Your task to perform on an android device: empty trash in the gmail app Image 0: 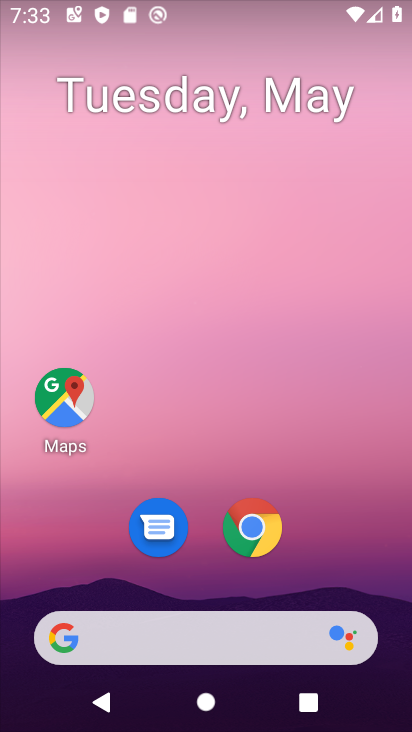
Step 0: drag from (338, 557) to (212, 89)
Your task to perform on an android device: empty trash in the gmail app Image 1: 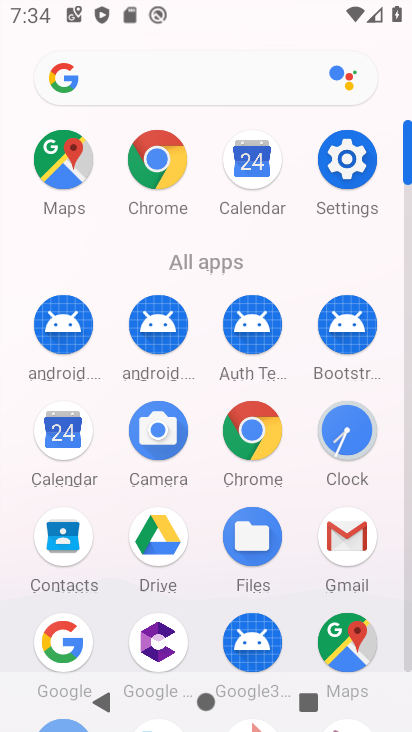
Step 1: click (346, 537)
Your task to perform on an android device: empty trash in the gmail app Image 2: 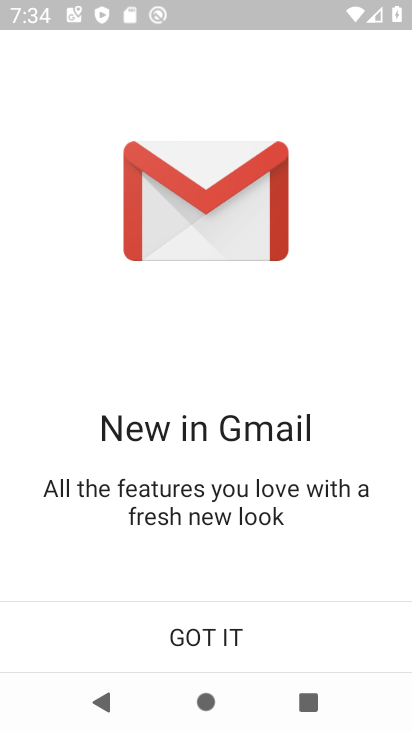
Step 2: click (233, 632)
Your task to perform on an android device: empty trash in the gmail app Image 3: 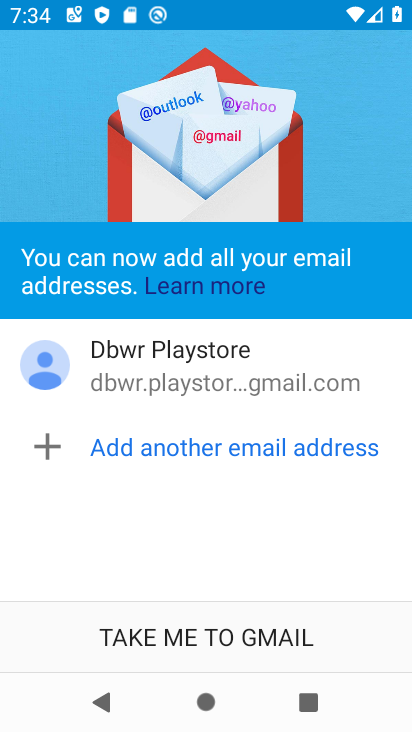
Step 3: click (233, 632)
Your task to perform on an android device: empty trash in the gmail app Image 4: 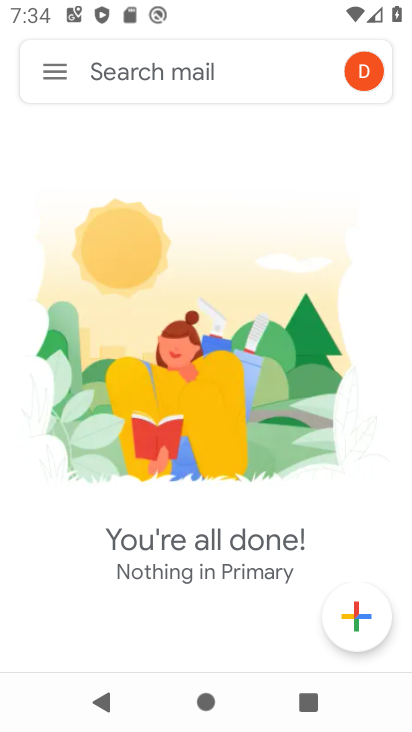
Step 4: click (51, 79)
Your task to perform on an android device: empty trash in the gmail app Image 5: 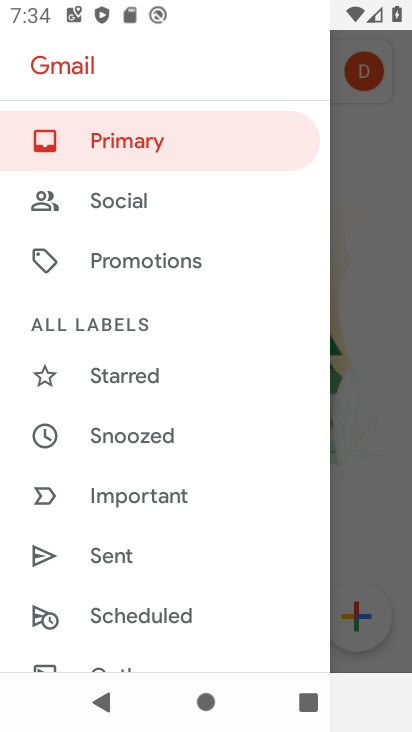
Step 5: drag from (162, 519) to (207, 435)
Your task to perform on an android device: empty trash in the gmail app Image 6: 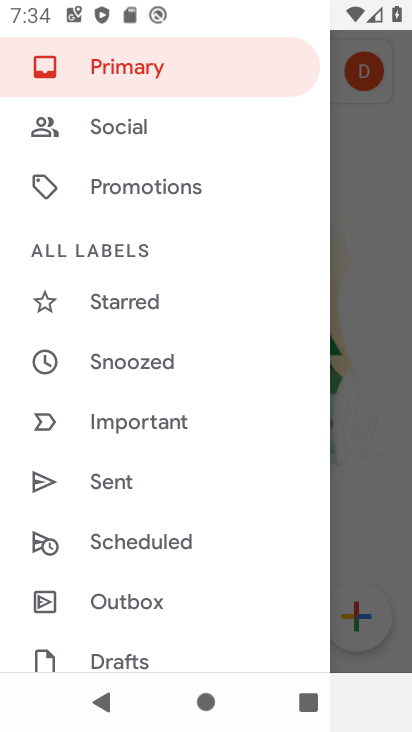
Step 6: drag from (146, 557) to (170, 485)
Your task to perform on an android device: empty trash in the gmail app Image 7: 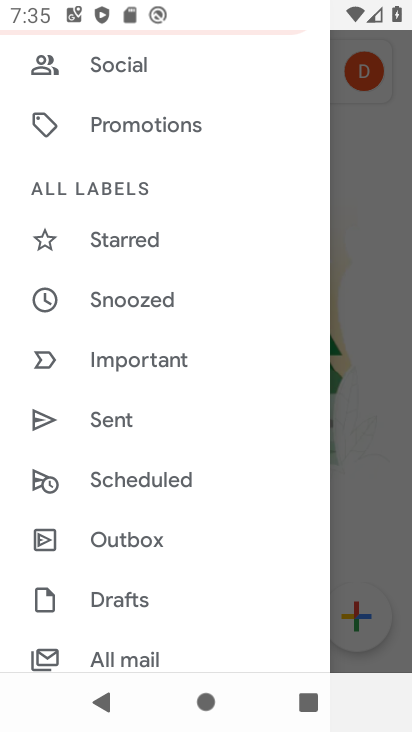
Step 7: drag from (149, 577) to (200, 492)
Your task to perform on an android device: empty trash in the gmail app Image 8: 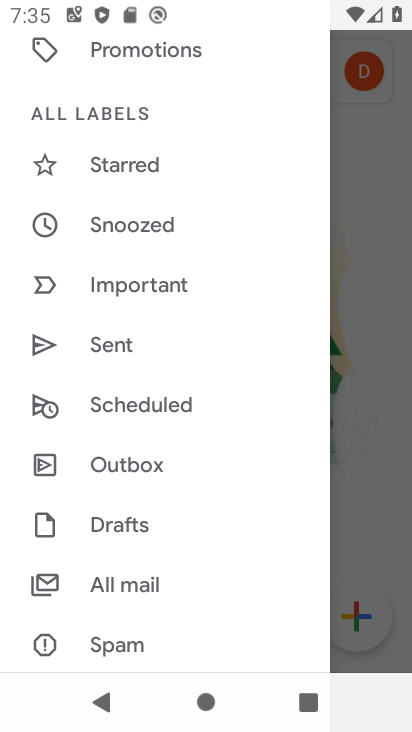
Step 8: drag from (159, 599) to (210, 523)
Your task to perform on an android device: empty trash in the gmail app Image 9: 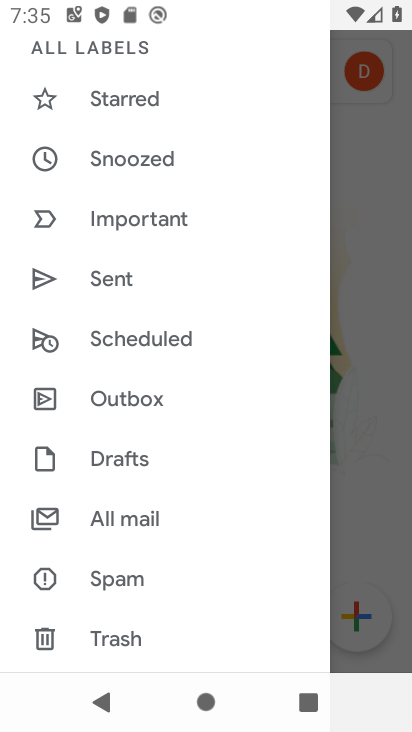
Step 9: click (112, 622)
Your task to perform on an android device: empty trash in the gmail app Image 10: 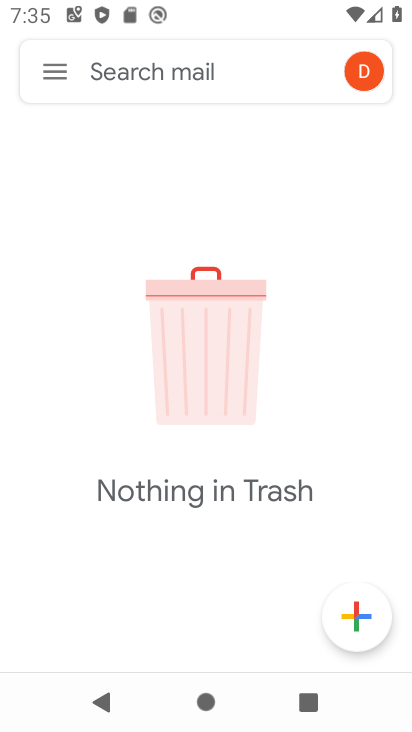
Step 10: task complete